Your task to perform on an android device: delete location history Image 0: 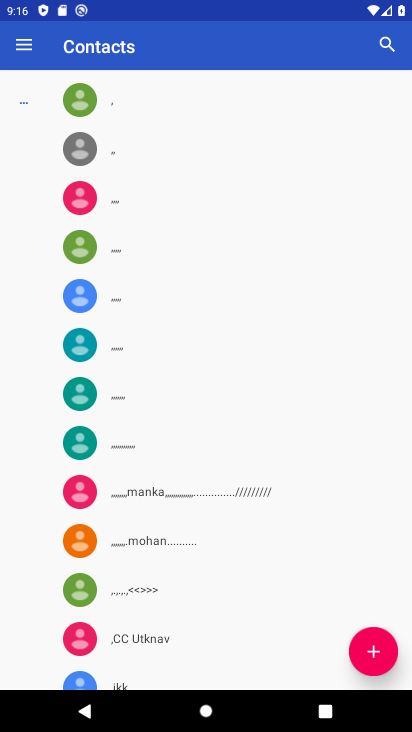
Step 0: press home button
Your task to perform on an android device: delete location history Image 1: 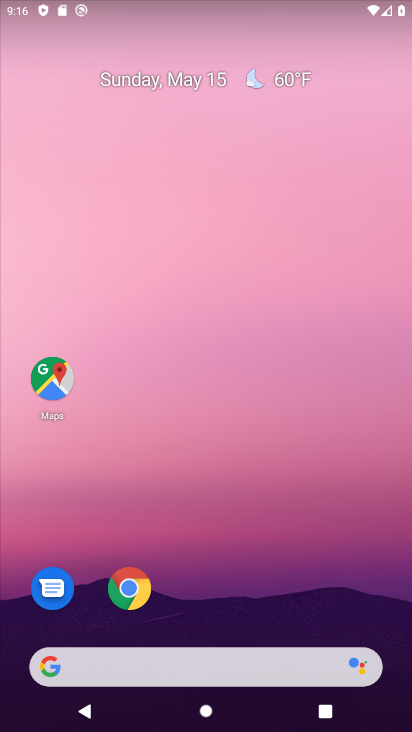
Step 1: drag from (209, 616) to (317, 50)
Your task to perform on an android device: delete location history Image 2: 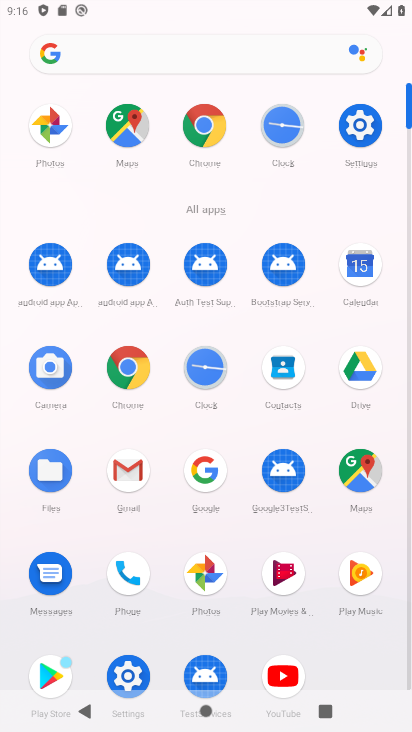
Step 2: click (368, 473)
Your task to perform on an android device: delete location history Image 3: 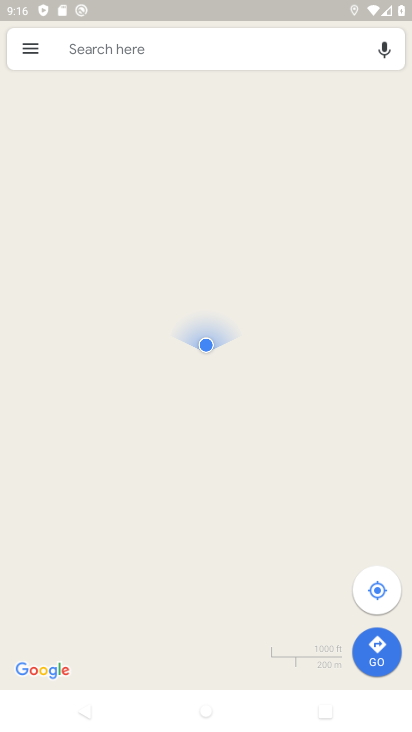
Step 3: click (34, 52)
Your task to perform on an android device: delete location history Image 4: 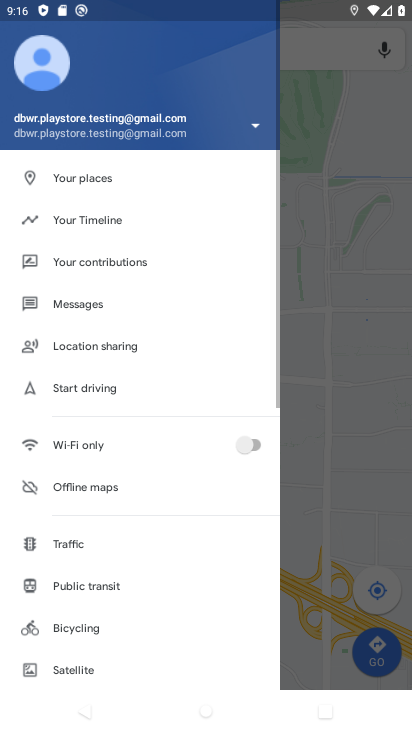
Step 4: click (94, 227)
Your task to perform on an android device: delete location history Image 5: 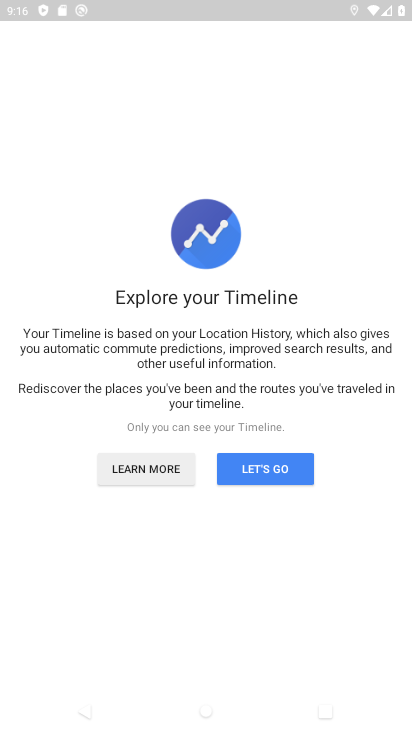
Step 5: click (277, 473)
Your task to perform on an android device: delete location history Image 6: 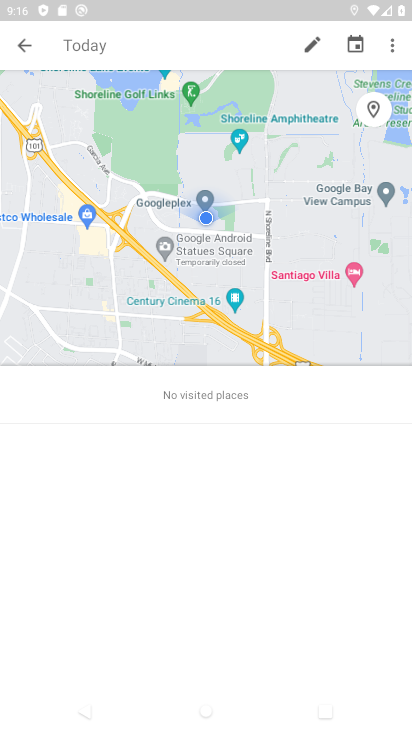
Step 6: click (395, 48)
Your task to perform on an android device: delete location history Image 7: 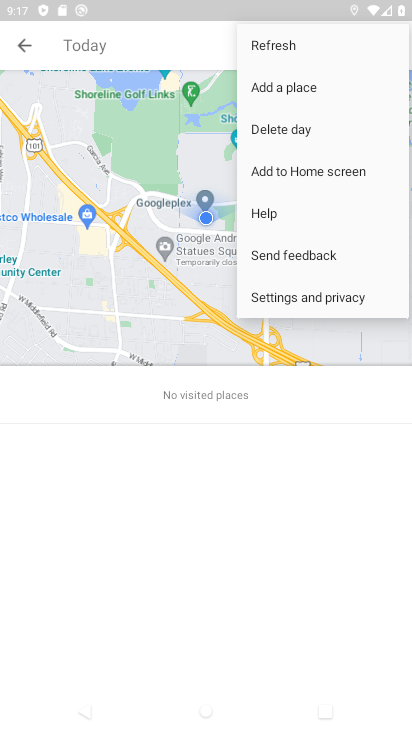
Step 7: click (292, 299)
Your task to perform on an android device: delete location history Image 8: 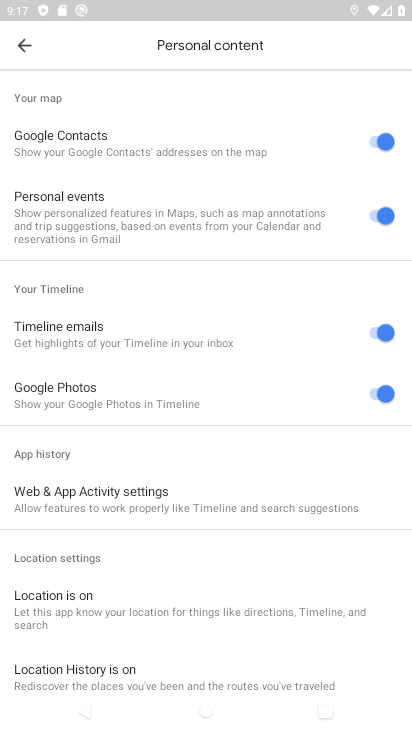
Step 8: drag from (168, 580) to (249, 223)
Your task to perform on an android device: delete location history Image 9: 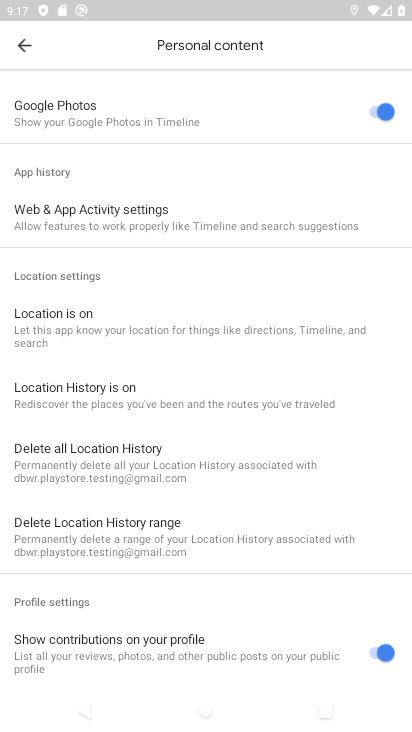
Step 9: click (150, 468)
Your task to perform on an android device: delete location history Image 10: 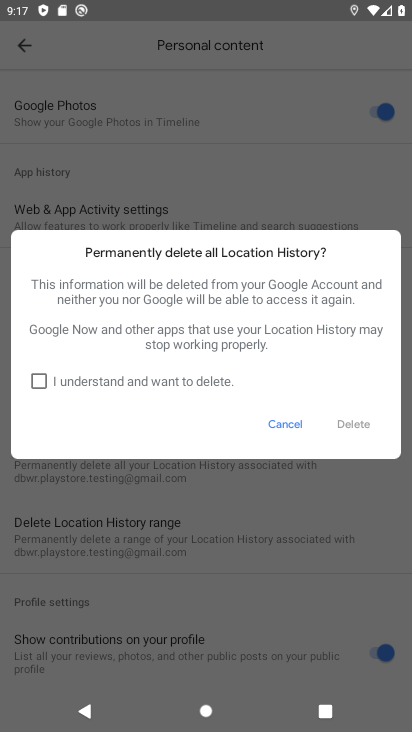
Step 10: click (85, 373)
Your task to perform on an android device: delete location history Image 11: 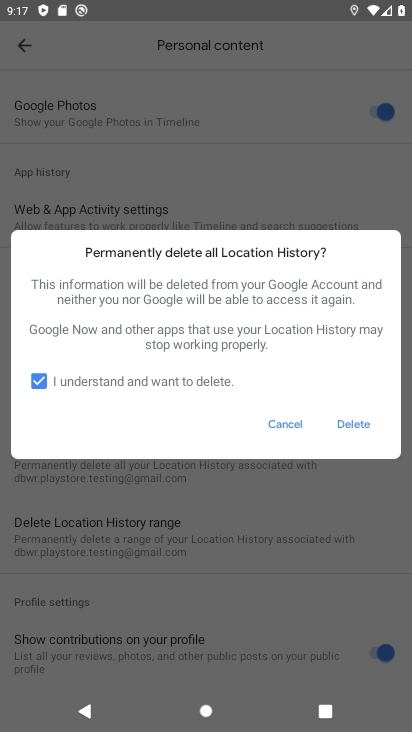
Step 11: click (361, 424)
Your task to perform on an android device: delete location history Image 12: 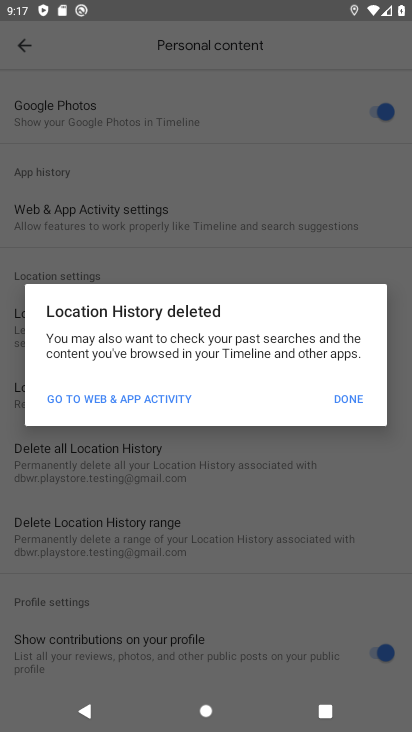
Step 12: click (352, 397)
Your task to perform on an android device: delete location history Image 13: 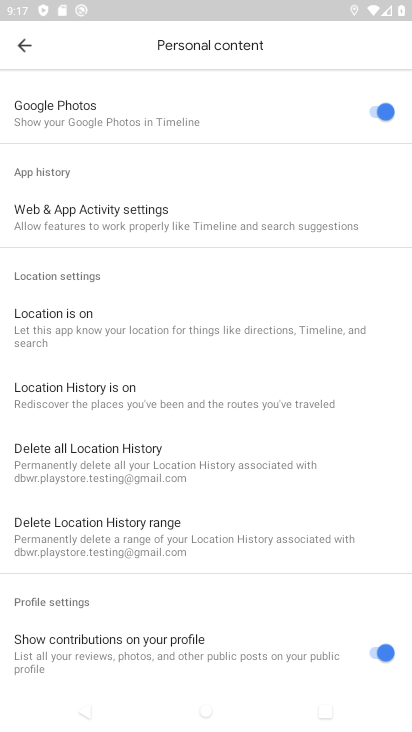
Step 13: task complete